Your task to perform on an android device: Open Google Maps and go to "Timeline" Image 0: 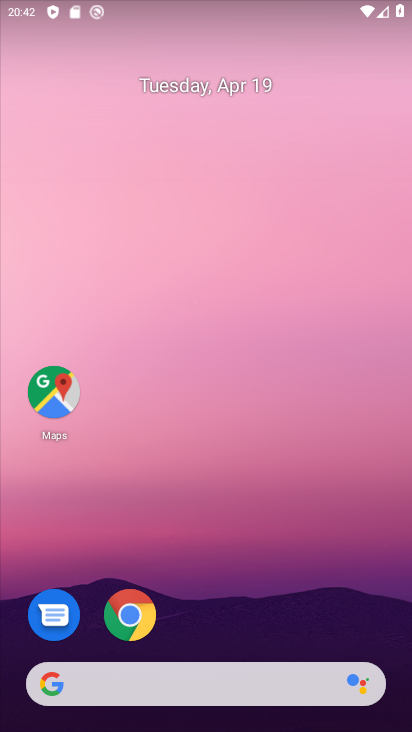
Step 0: drag from (251, 646) to (354, 291)
Your task to perform on an android device: Open Google Maps and go to "Timeline" Image 1: 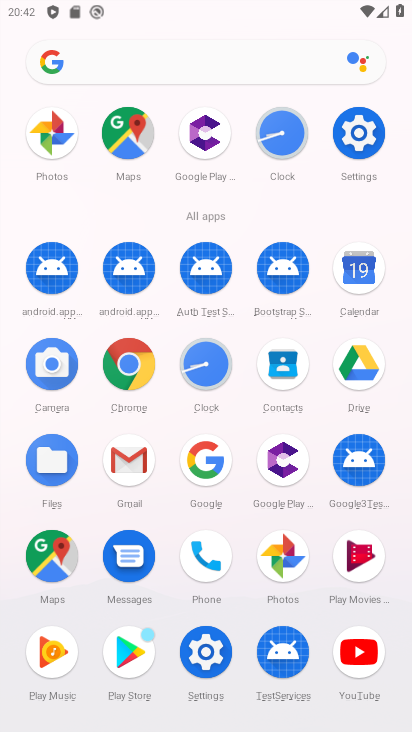
Step 1: click (123, 134)
Your task to perform on an android device: Open Google Maps and go to "Timeline" Image 2: 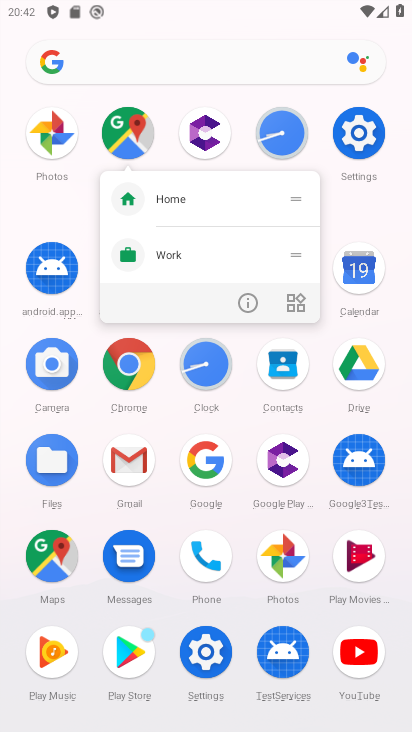
Step 2: click (134, 131)
Your task to perform on an android device: Open Google Maps and go to "Timeline" Image 3: 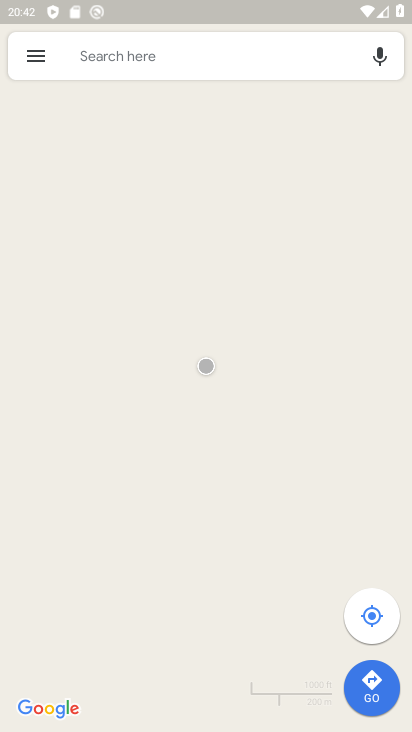
Step 3: click (39, 56)
Your task to perform on an android device: Open Google Maps and go to "Timeline" Image 4: 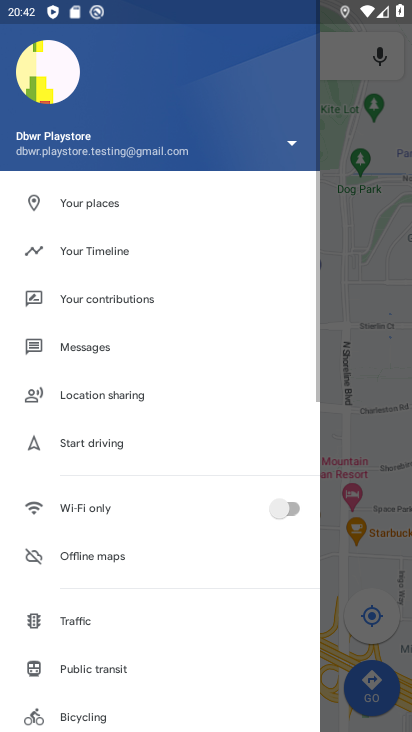
Step 4: click (82, 255)
Your task to perform on an android device: Open Google Maps and go to "Timeline" Image 5: 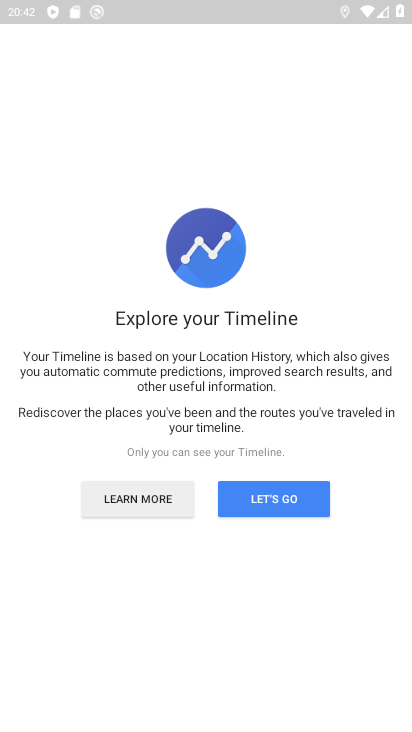
Step 5: click (266, 510)
Your task to perform on an android device: Open Google Maps and go to "Timeline" Image 6: 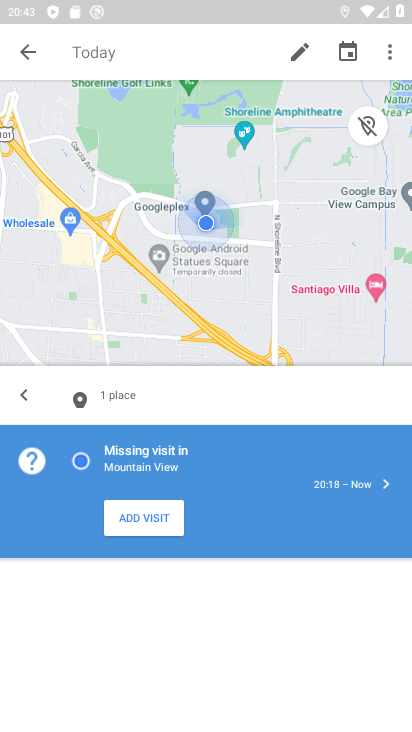
Step 6: task complete